Your task to perform on an android device: Open Chrome and go to settings Image 0: 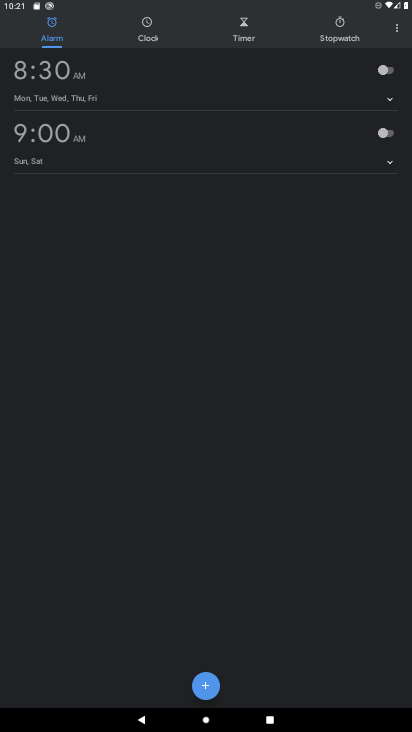
Step 0: press home button
Your task to perform on an android device: Open Chrome and go to settings Image 1: 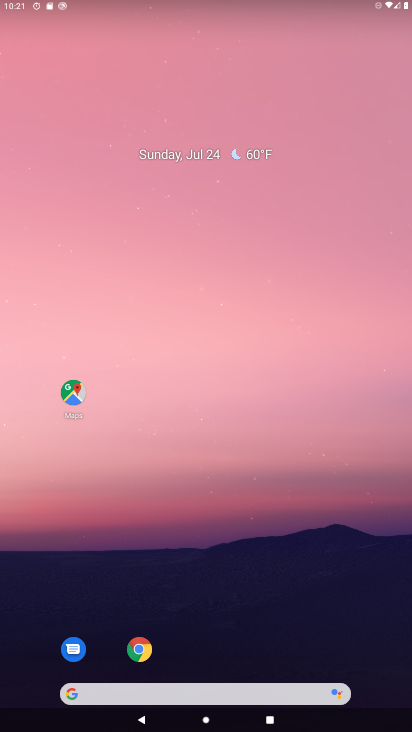
Step 1: drag from (316, 583) to (225, 49)
Your task to perform on an android device: Open Chrome and go to settings Image 2: 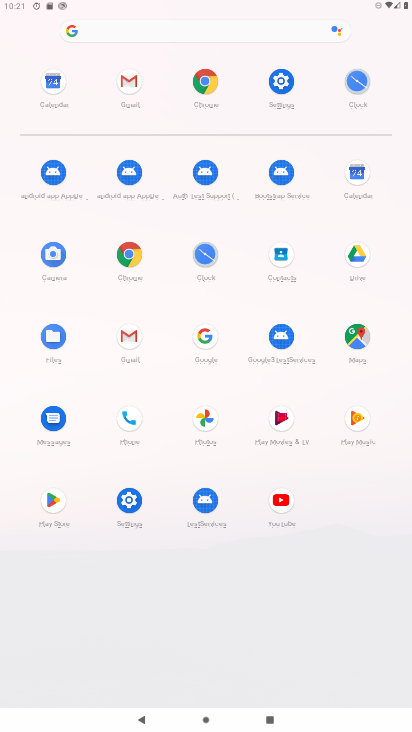
Step 2: click (206, 80)
Your task to perform on an android device: Open Chrome and go to settings Image 3: 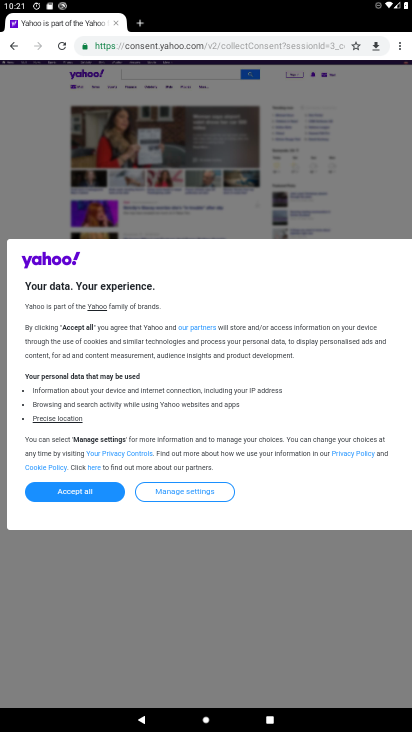
Step 3: task complete